Your task to perform on an android device: Open calendar and show me the fourth week of next month Image 0: 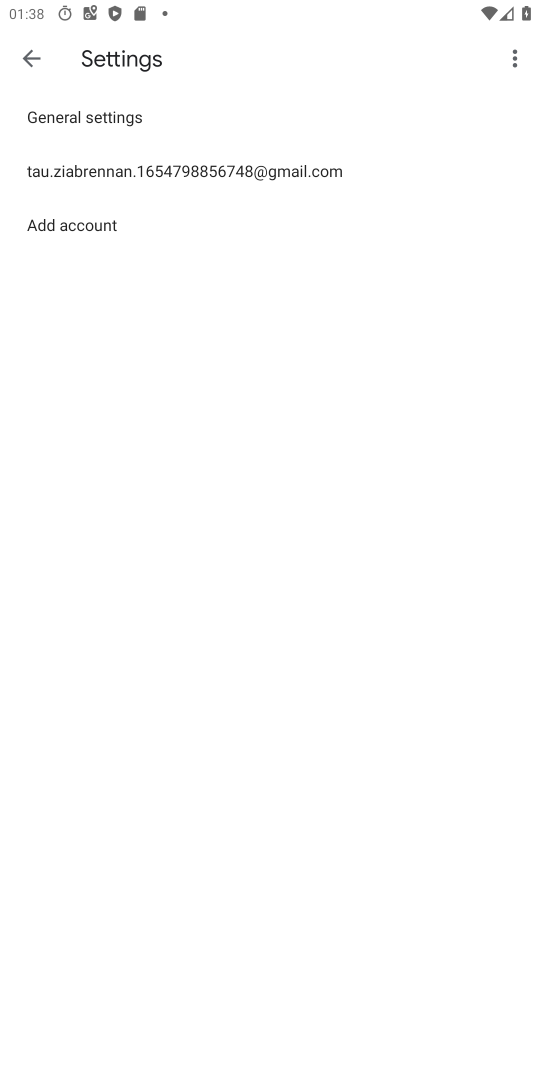
Step 0: press home button
Your task to perform on an android device: Open calendar and show me the fourth week of next month Image 1: 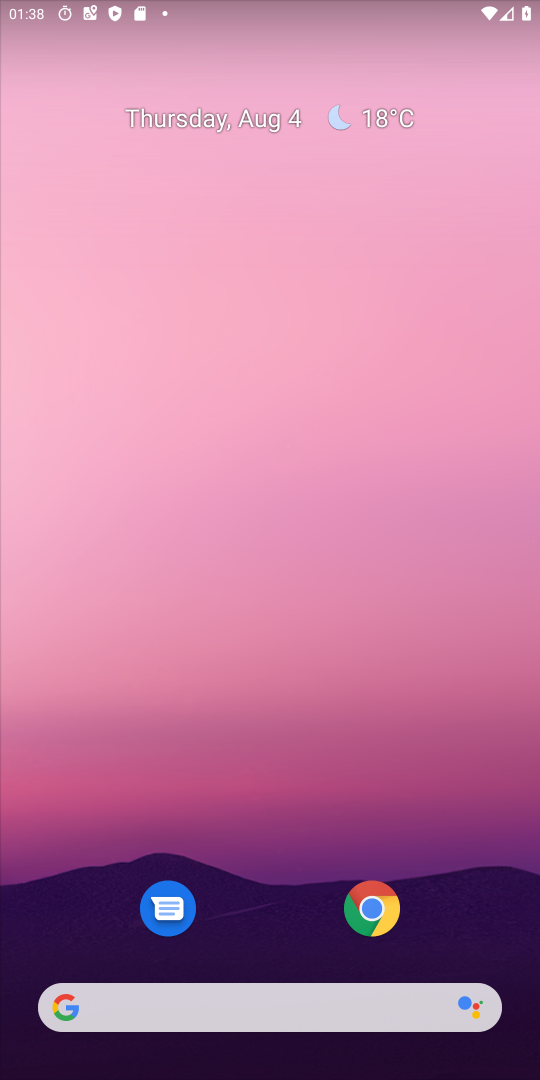
Step 1: drag from (258, 1034) to (136, 252)
Your task to perform on an android device: Open calendar and show me the fourth week of next month Image 2: 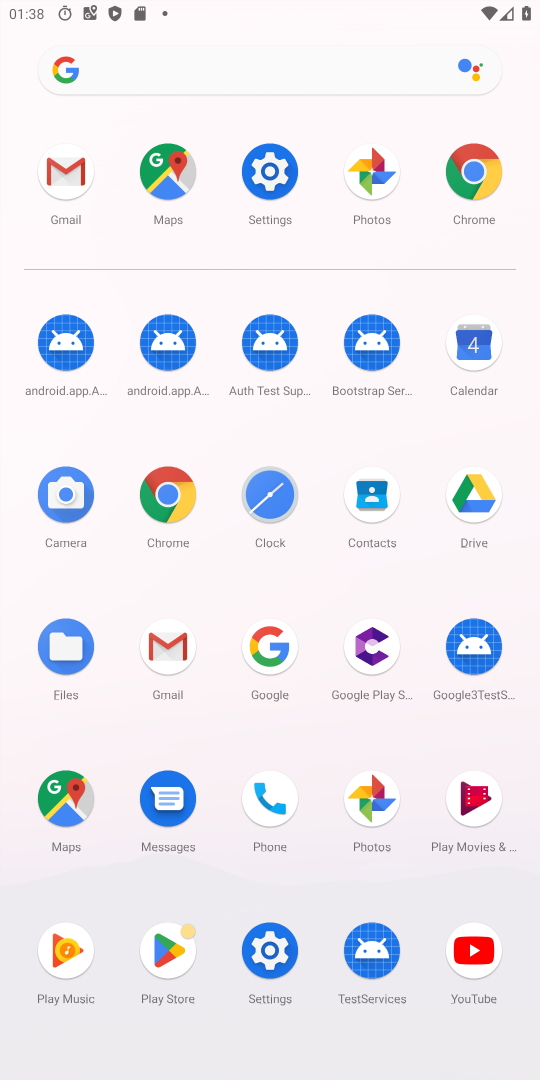
Step 2: click (478, 351)
Your task to perform on an android device: Open calendar and show me the fourth week of next month Image 3: 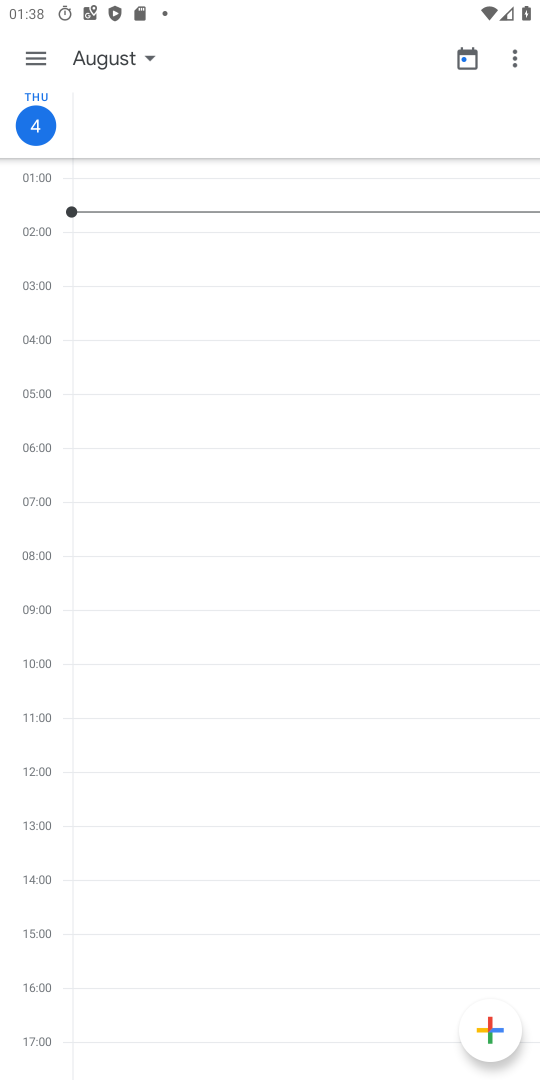
Step 3: click (30, 60)
Your task to perform on an android device: Open calendar and show me the fourth week of next month Image 4: 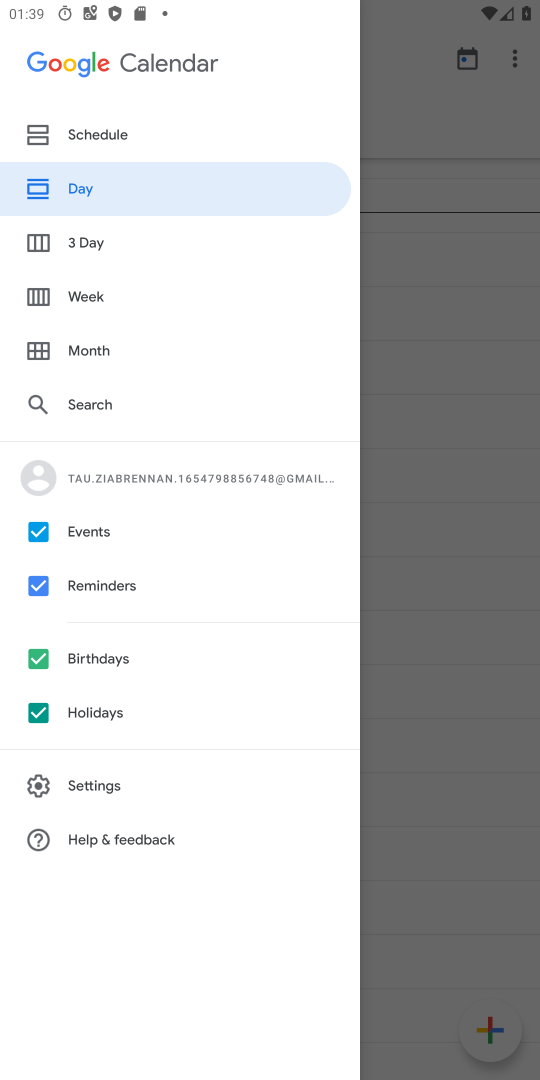
Step 4: click (81, 353)
Your task to perform on an android device: Open calendar and show me the fourth week of next month Image 5: 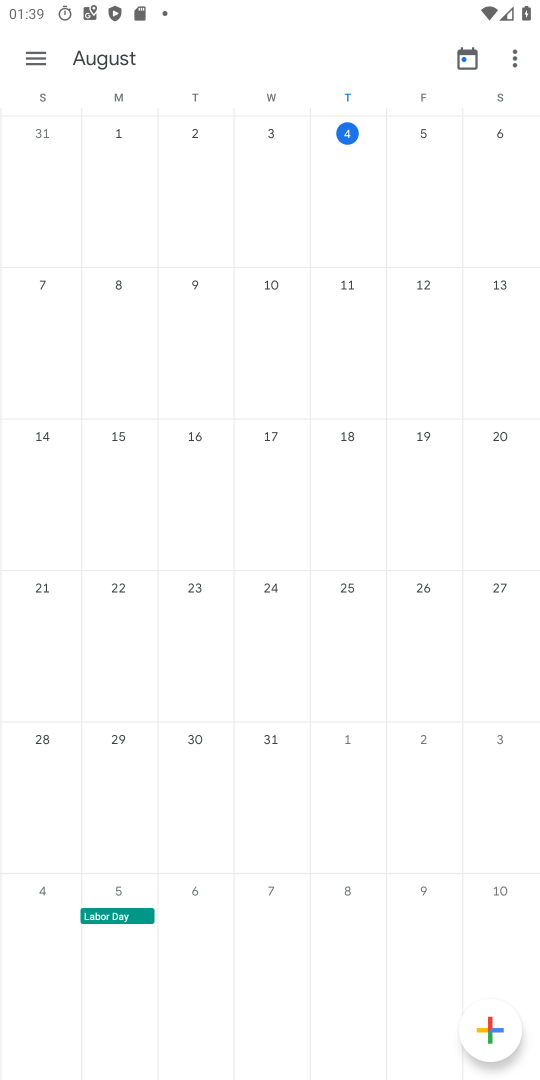
Step 5: click (108, 743)
Your task to perform on an android device: Open calendar and show me the fourth week of next month Image 6: 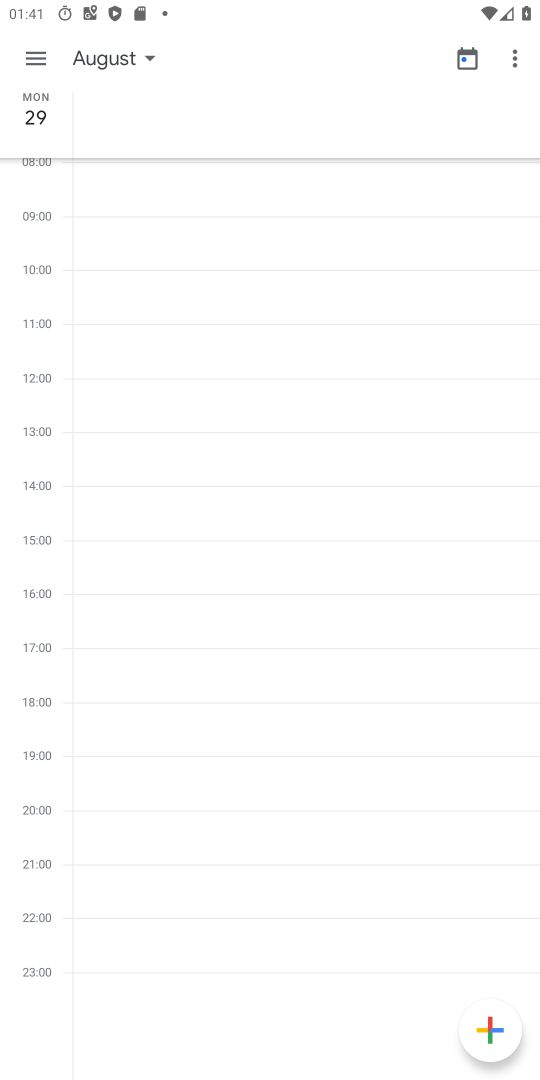
Step 6: task complete